Your task to perform on an android device: move a message to another label in the gmail app Image 0: 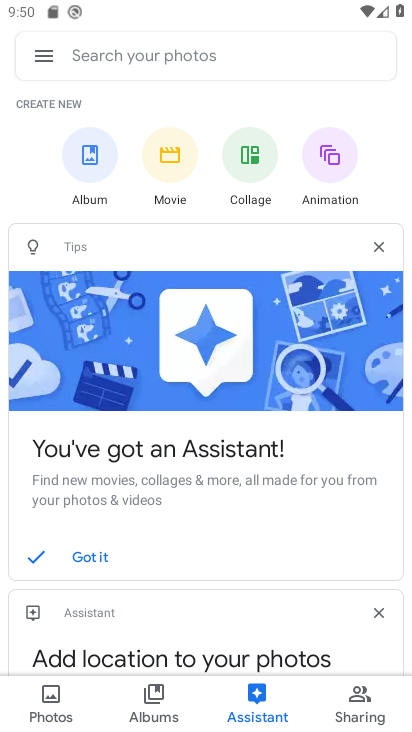
Step 0: press home button
Your task to perform on an android device: move a message to another label in the gmail app Image 1: 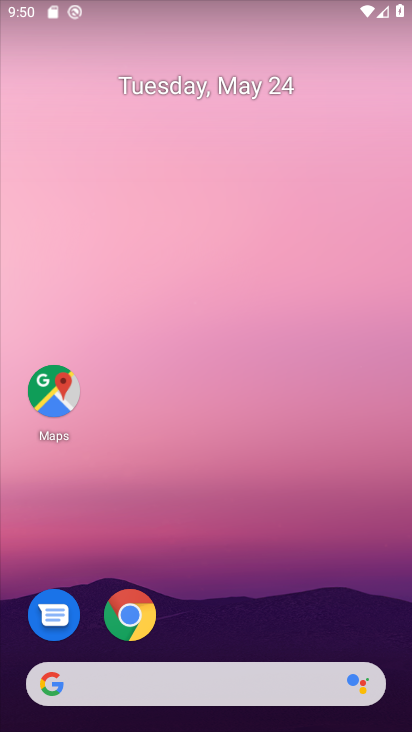
Step 1: drag from (369, 616) to (348, 316)
Your task to perform on an android device: move a message to another label in the gmail app Image 2: 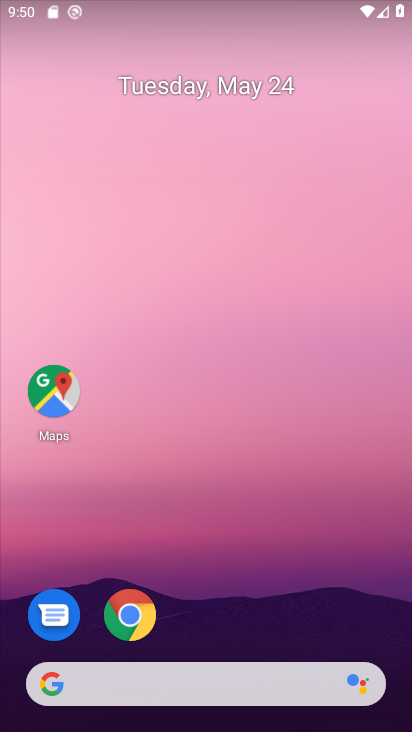
Step 2: drag from (344, 623) to (358, 285)
Your task to perform on an android device: move a message to another label in the gmail app Image 3: 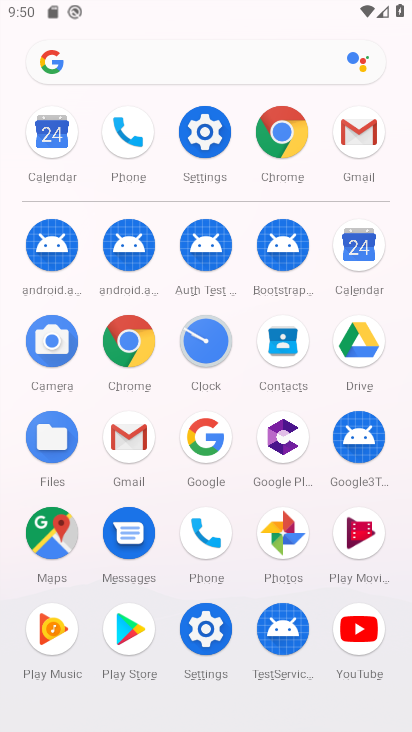
Step 3: click (126, 443)
Your task to perform on an android device: move a message to another label in the gmail app Image 4: 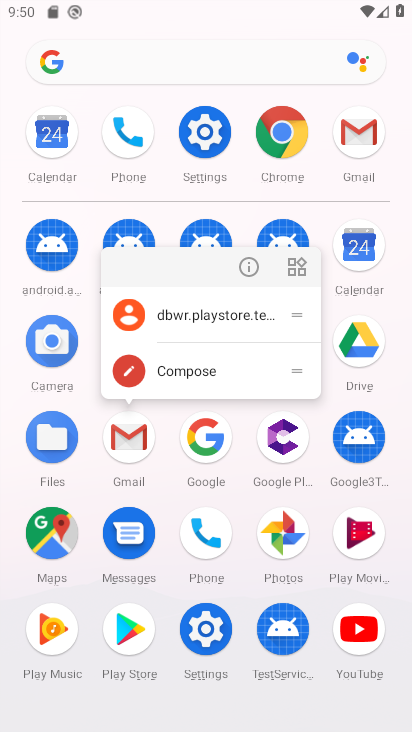
Step 4: click (126, 443)
Your task to perform on an android device: move a message to another label in the gmail app Image 5: 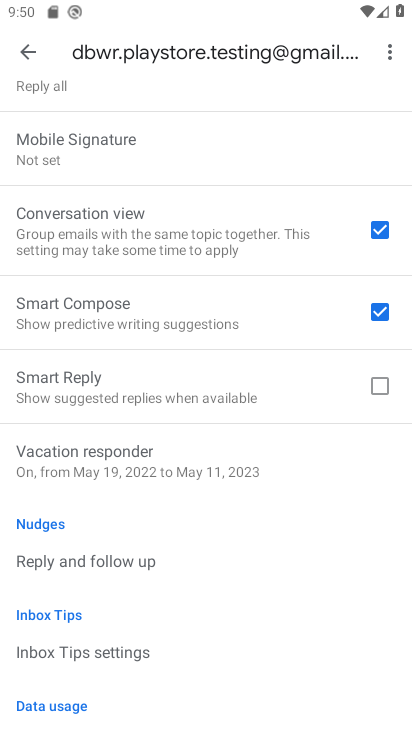
Step 5: click (32, 62)
Your task to perform on an android device: move a message to another label in the gmail app Image 6: 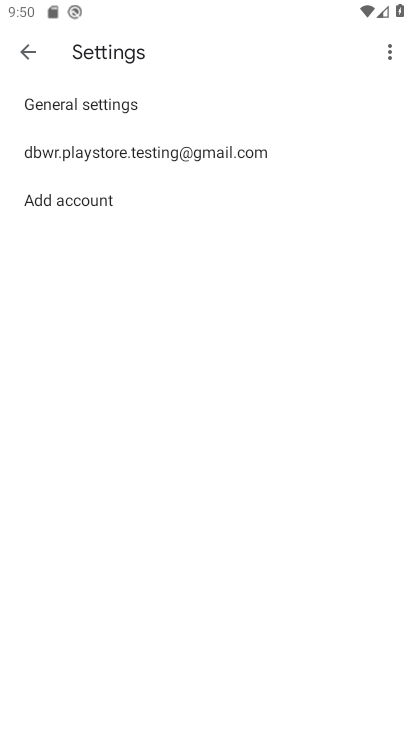
Step 6: click (32, 62)
Your task to perform on an android device: move a message to another label in the gmail app Image 7: 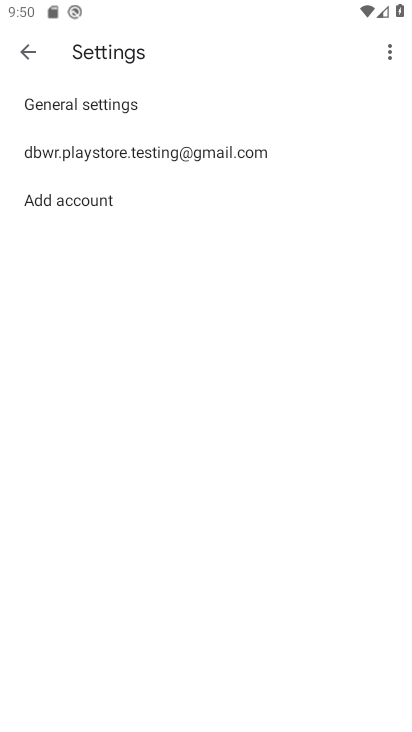
Step 7: click (36, 55)
Your task to perform on an android device: move a message to another label in the gmail app Image 8: 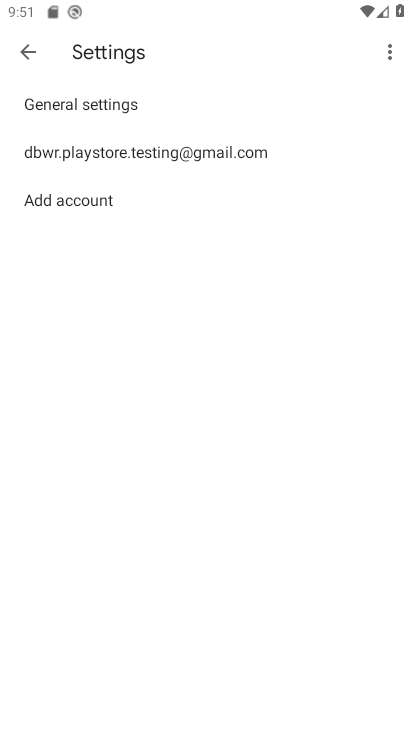
Step 8: click (36, 55)
Your task to perform on an android device: move a message to another label in the gmail app Image 9: 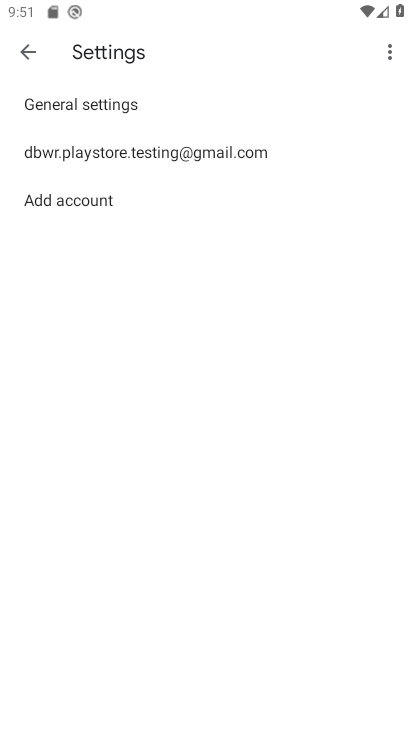
Step 9: press back button
Your task to perform on an android device: move a message to another label in the gmail app Image 10: 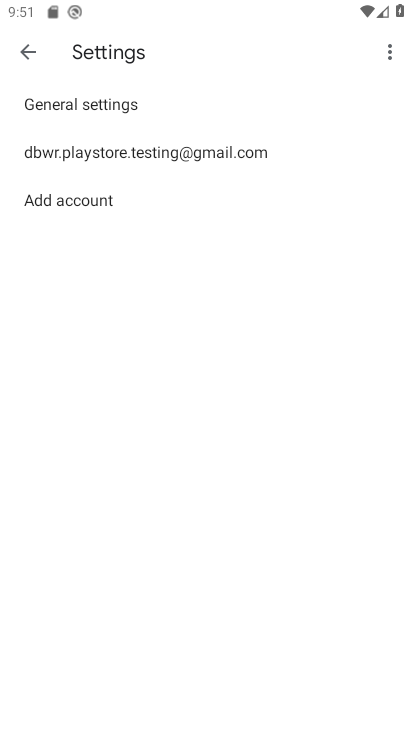
Step 10: press back button
Your task to perform on an android device: move a message to another label in the gmail app Image 11: 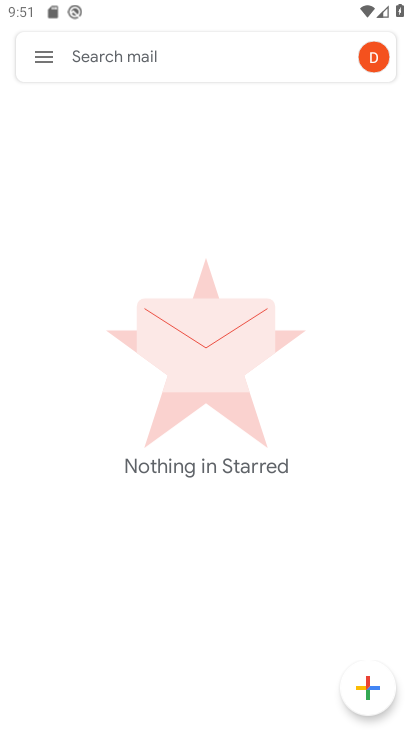
Step 11: click (41, 63)
Your task to perform on an android device: move a message to another label in the gmail app Image 12: 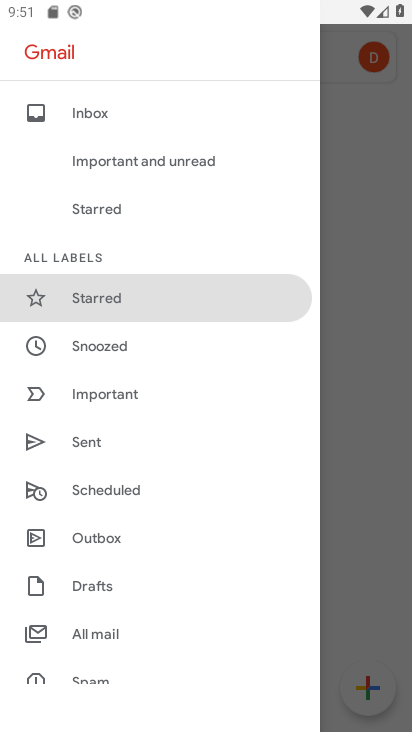
Step 12: click (134, 117)
Your task to perform on an android device: move a message to another label in the gmail app Image 13: 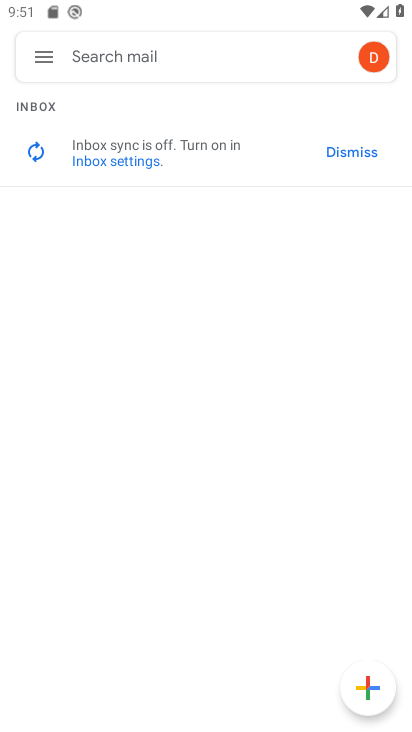
Step 13: task complete